Your task to perform on an android device: Open the web browser Image 0: 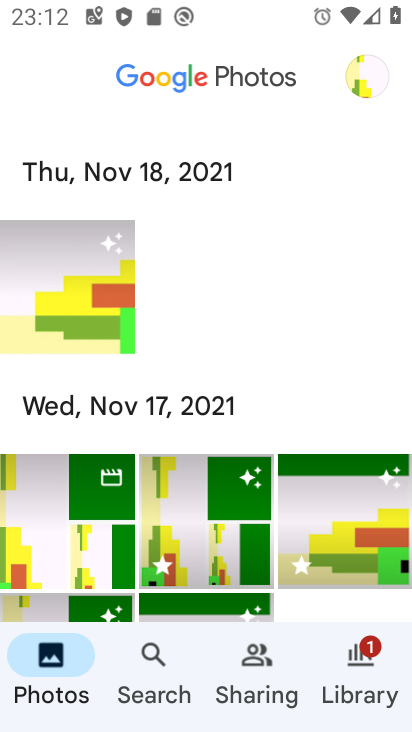
Step 0: press home button
Your task to perform on an android device: Open the web browser Image 1: 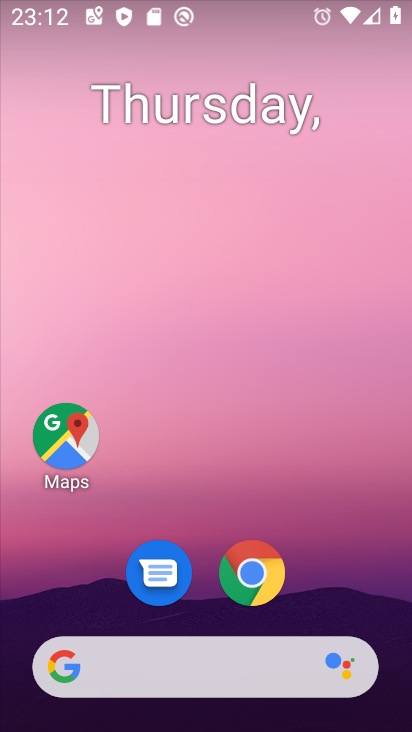
Step 1: click (256, 573)
Your task to perform on an android device: Open the web browser Image 2: 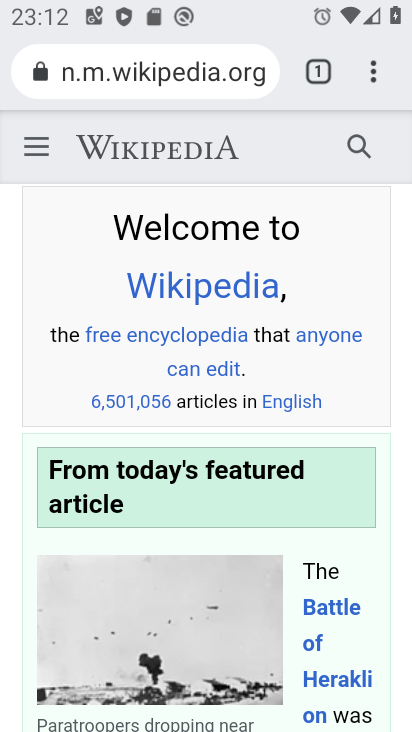
Step 2: task complete